Your task to perform on an android device: turn off wifi Image 0: 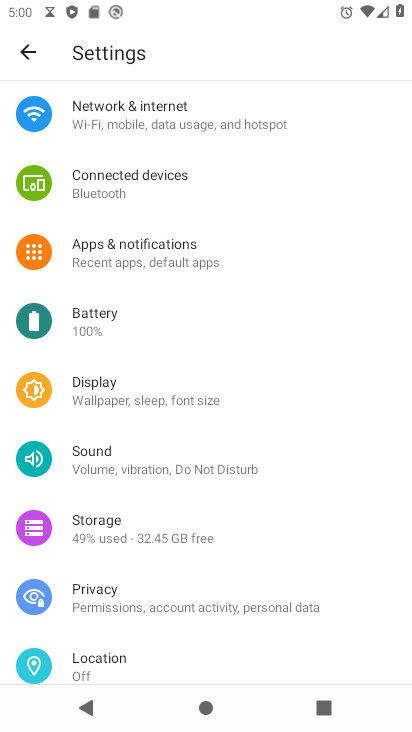
Step 0: press back button
Your task to perform on an android device: turn off wifi Image 1: 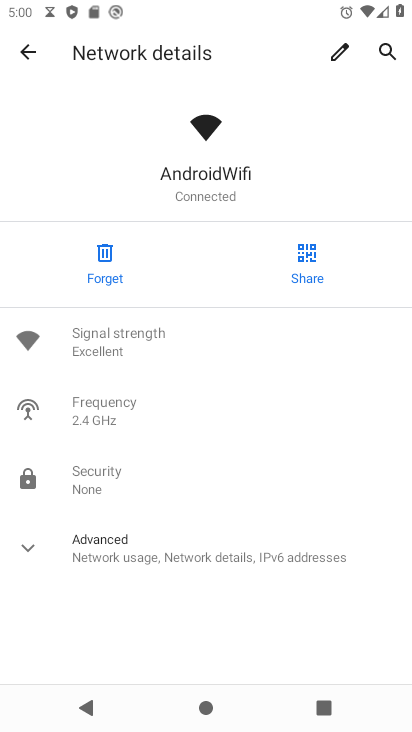
Step 1: press back button
Your task to perform on an android device: turn off wifi Image 2: 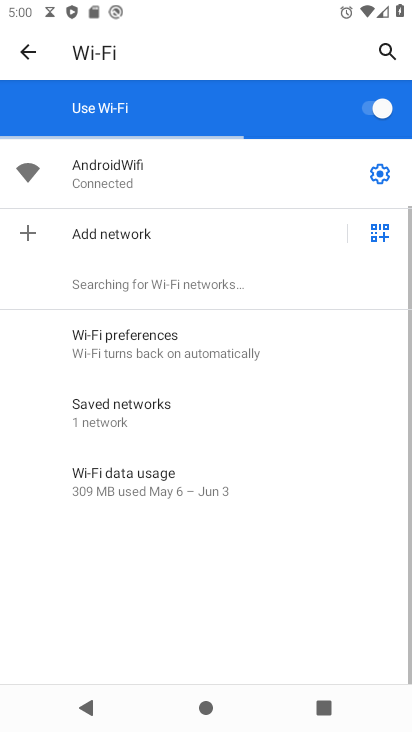
Step 2: press back button
Your task to perform on an android device: turn off wifi Image 3: 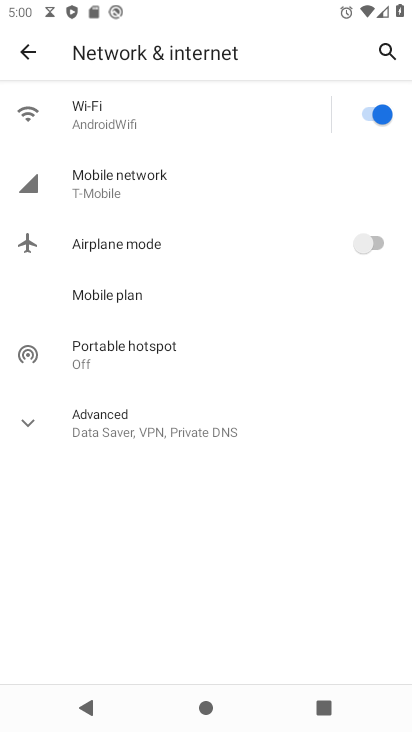
Step 3: press back button
Your task to perform on an android device: turn off wifi Image 4: 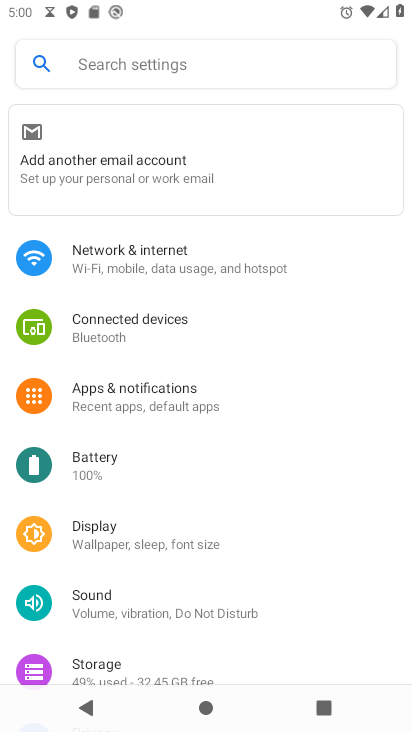
Step 4: press back button
Your task to perform on an android device: turn off wifi Image 5: 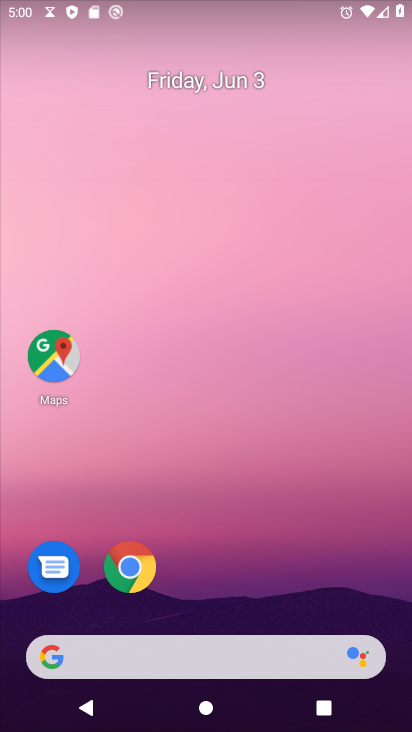
Step 5: drag from (248, 557) to (122, 46)
Your task to perform on an android device: turn off wifi Image 6: 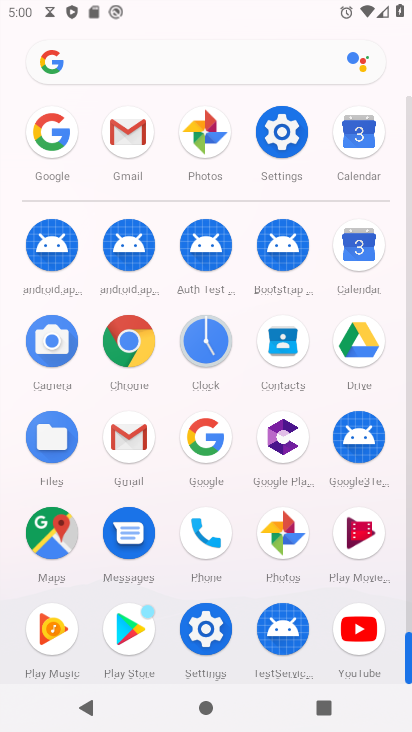
Step 6: click (281, 129)
Your task to perform on an android device: turn off wifi Image 7: 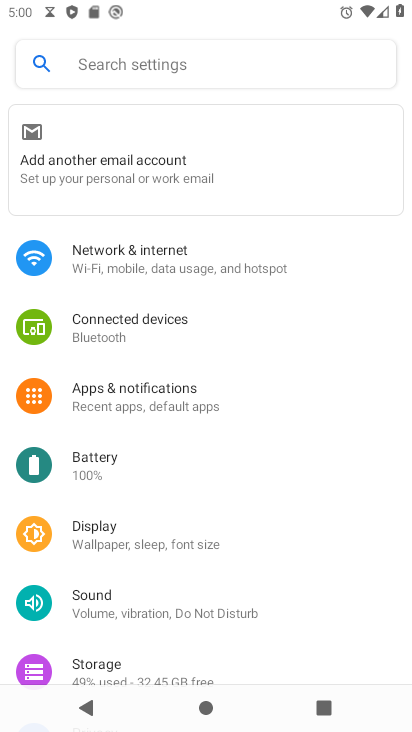
Step 7: click (158, 247)
Your task to perform on an android device: turn off wifi Image 8: 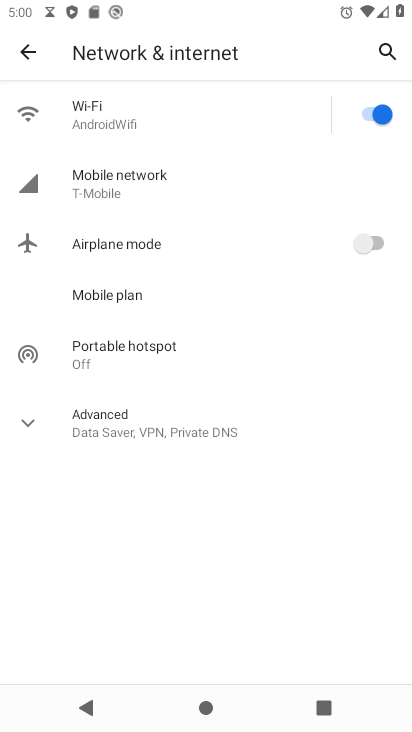
Step 8: click (367, 107)
Your task to perform on an android device: turn off wifi Image 9: 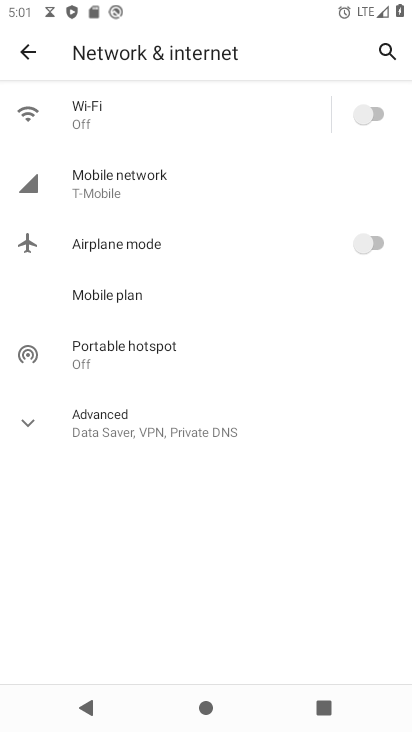
Step 9: task complete